Your task to perform on an android device: Open the phone app and click the voicemail tab. Image 0: 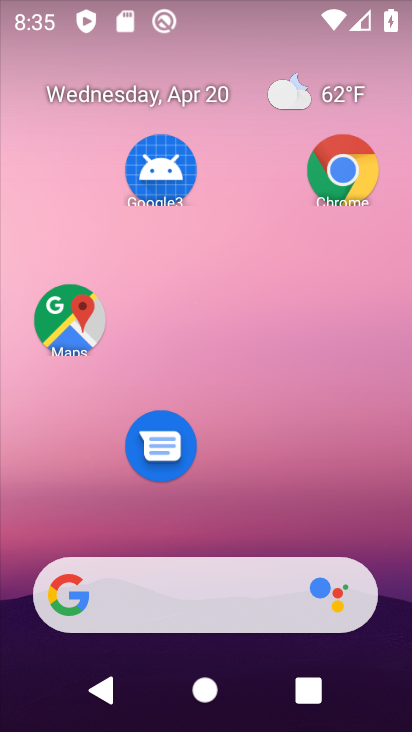
Step 0: drag from (265, 468) to (259, 92)
Your task to perform on an android device: Open the phone app and click the voicemail tab. Image 1: 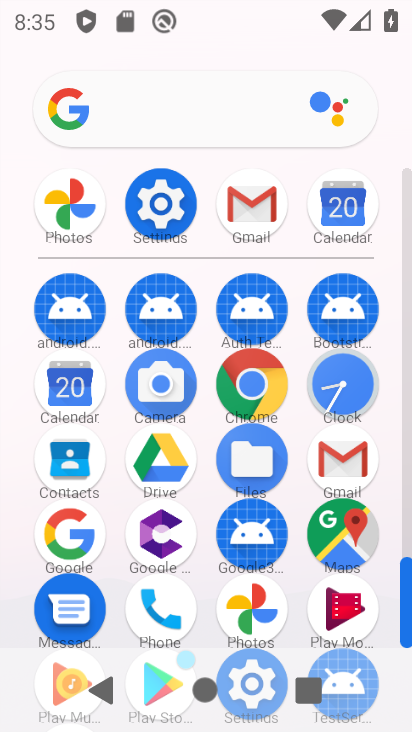
Step 1: click (154, 612)
Your task to perform on an android device: Open the phone app and click the voicemail tab. Image 2: 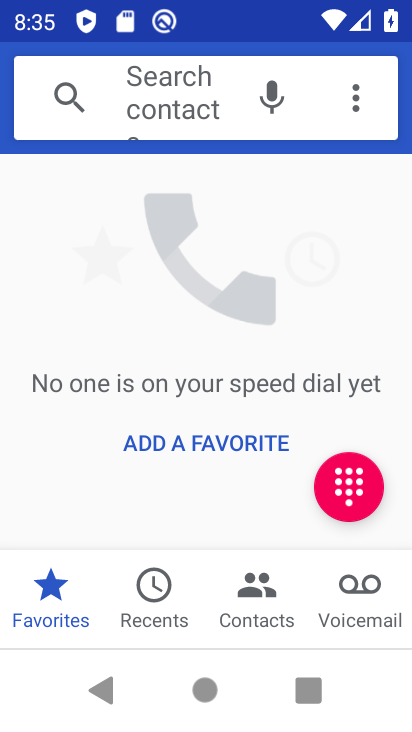
Step 2: click (357, 596)
Your task to perform on an android device: Open the phone app and click the voicemail tab. Image 3: 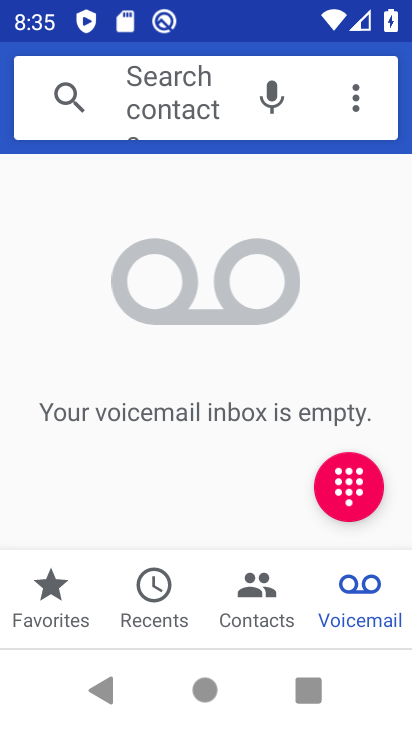
Step 3: task complete